Your task to perform on an android device: check battery use Image 0: 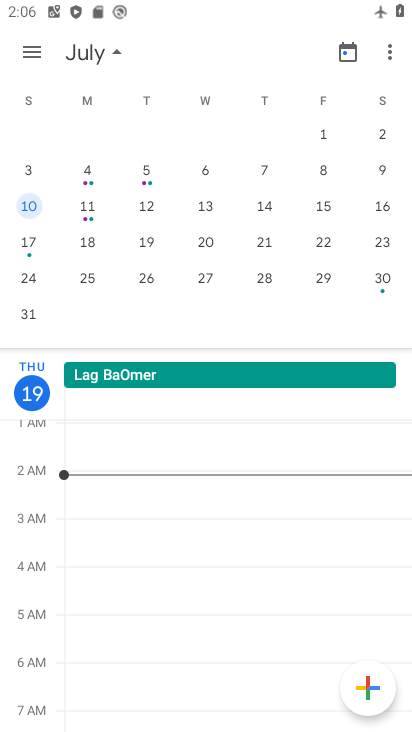
Step 0: press home button
Your task to perform on an android device: check battery use Image 1: 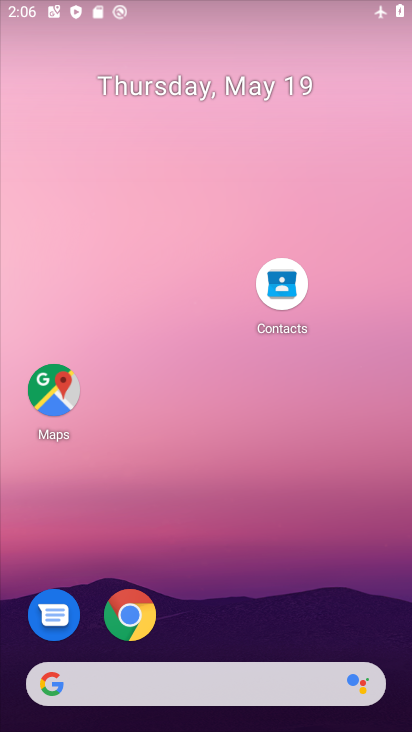
Step 1: drag from (208, 632) to (208, 130)
Your task to perform on an android device: check battery use Image 2: 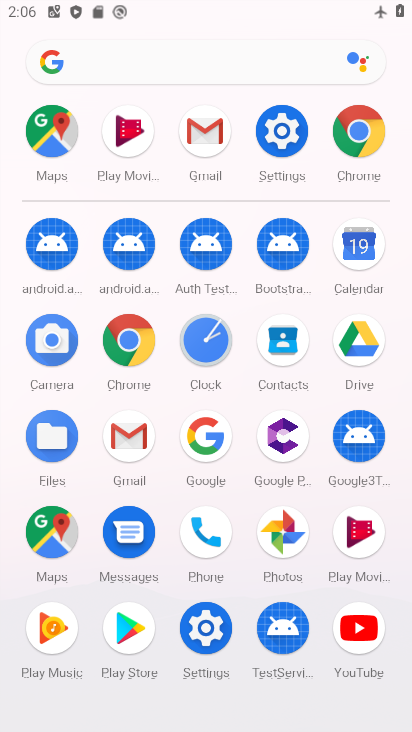
Step 2: click (215, 638)
Your task to perform on an android device: check battery use Image 3: 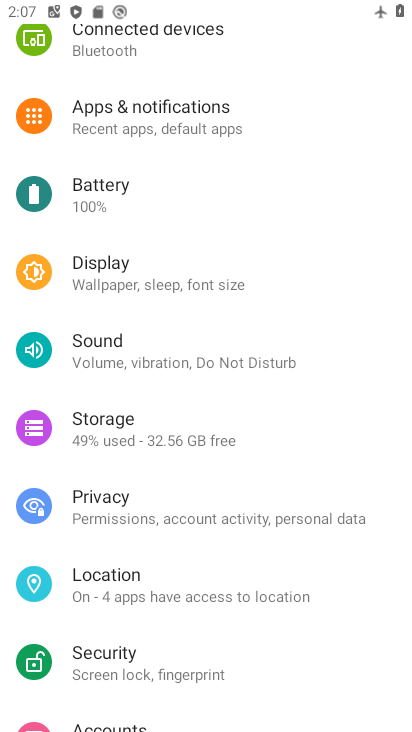
Step 3: drag from (181, 293) to (162, 591)
Your task to perform on an android device: check battery use Image 4: 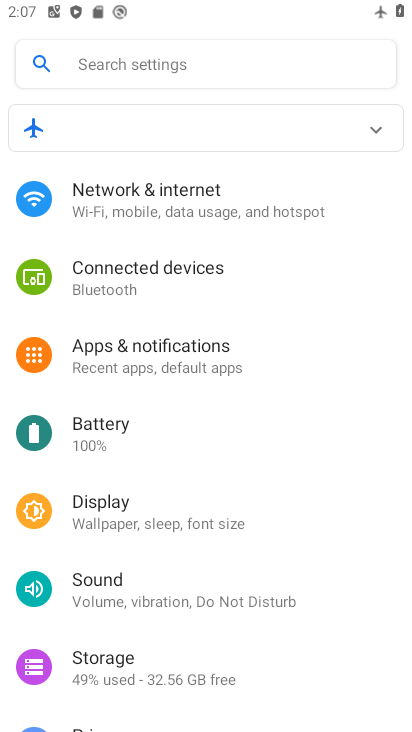
Step 4: click (131, 438)
Your task to perform on an android device: check battery use Image 5: 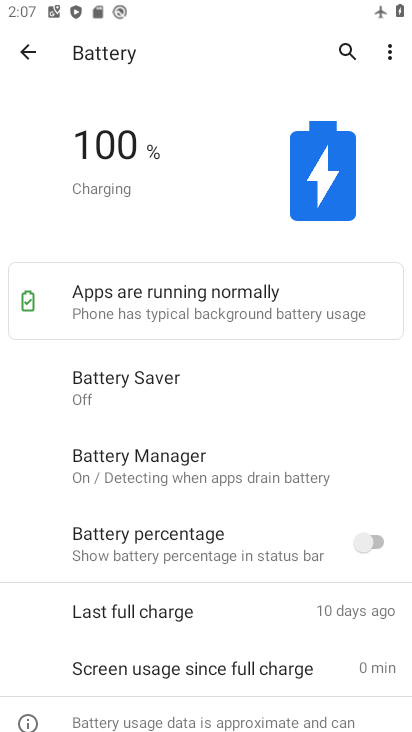
Step 5: task complete